Your task to perform on an android device: Open the calendar and show me this week's events? Image 0: 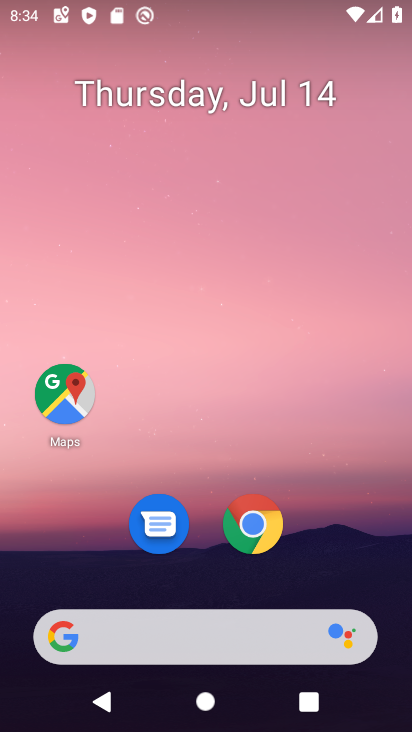
Step 0: drag from (320, 543) to (370, 22)
Your task to perform on an android device: Open the calendar and show me this week's events? Image 1: 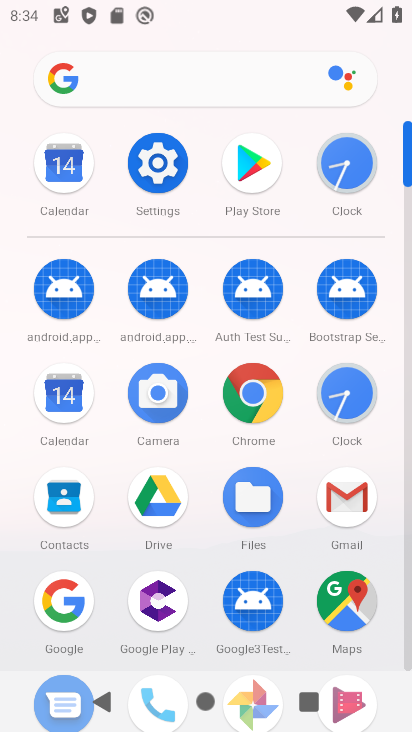
Step 1: click (67, 170)
Your task to perform on an android device: Open the calendar and show me this week's events? Image 2: 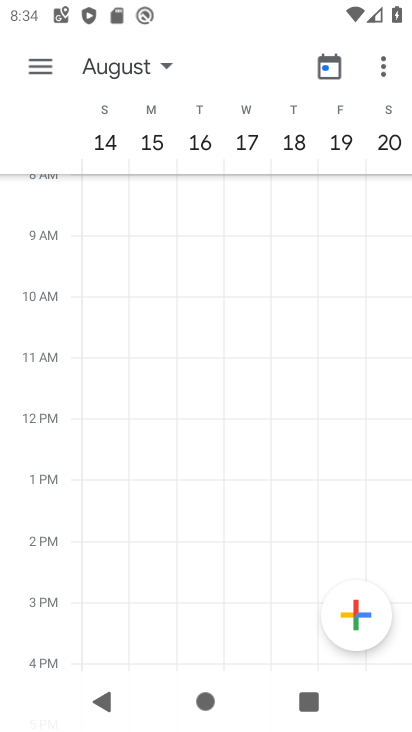
Step 2: task complete